Your task to perform on an android device: toggle airplane mode Image 0: 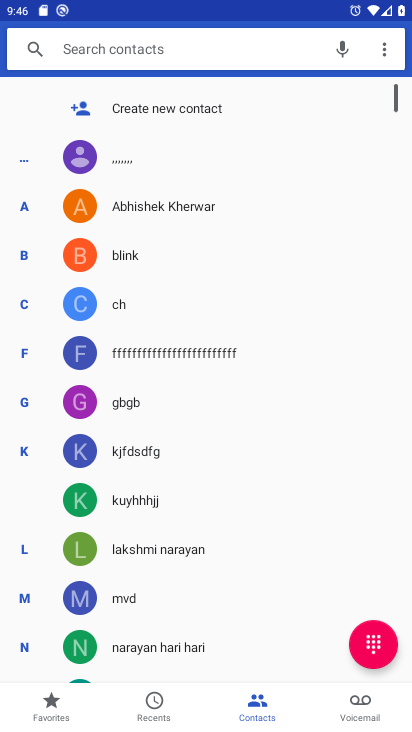
Step 0: press home button
Your task to perform on an android device: toggle airplane mode Image 1: 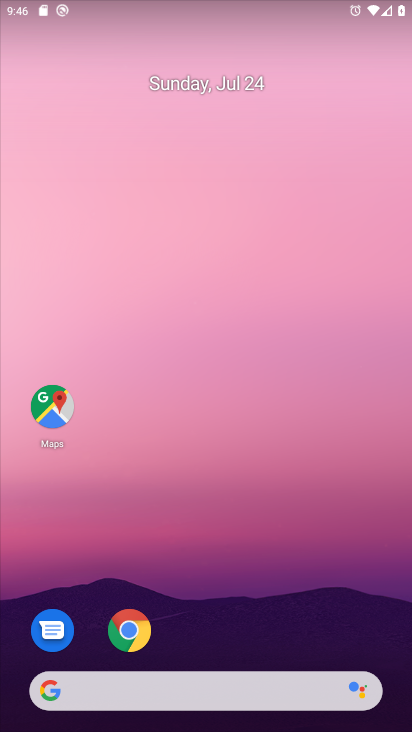
Step 1: drag from (208, 615) to (219, 94)
Your task to perform on an android device: toggle airplane mode Image 2: 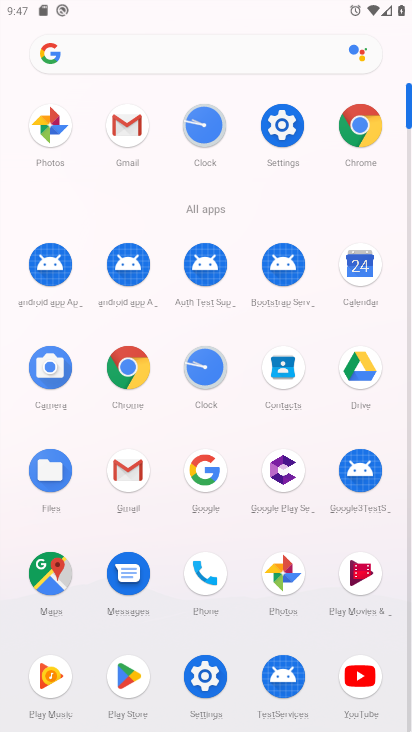
Step 2: click (281, 110)
Your task to perform on an android device: toggle airplane mode Image 3: 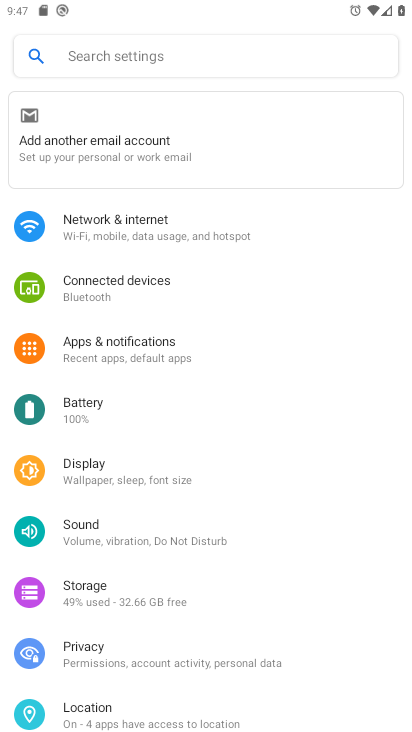
Step 3: click (122, 226)
Your task to perform on an android device: toggle airplane mode Image 4: 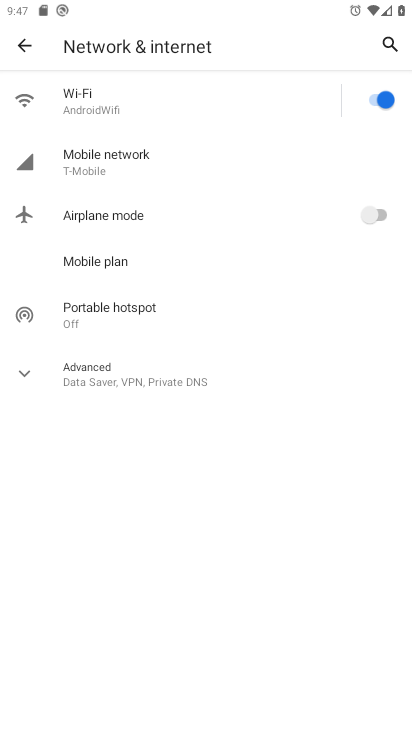
Step 4: click (361, 204)
Your task to perform on an android device: toggle airplane mode Image 5: 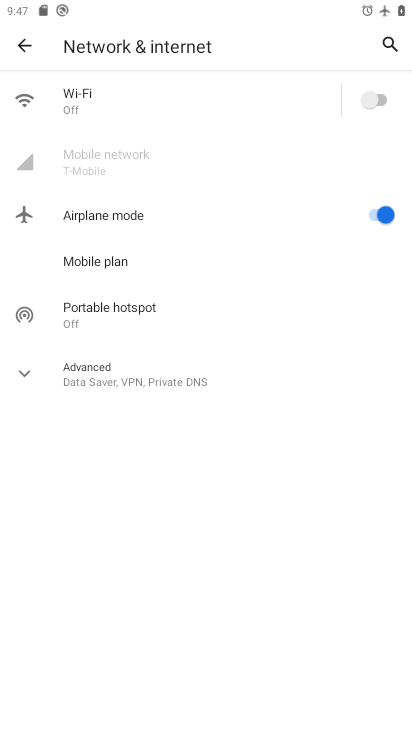
Step 5: task complete